Your task to perform on an android device: Open accessibility settings Image 0: 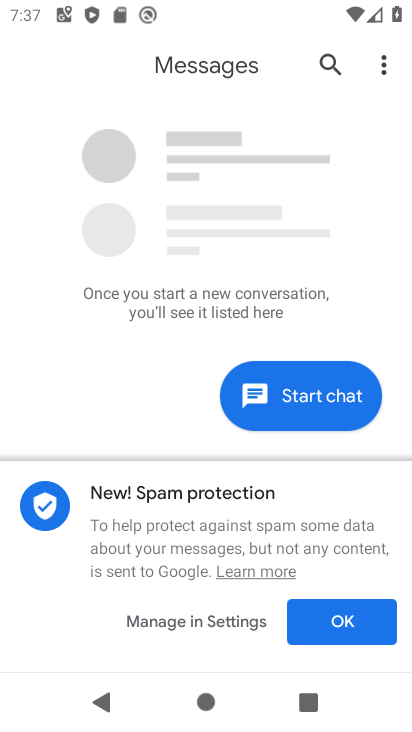
Step 0: press home button
Your task to perform on an android device: Open accessibility settings Image 1: 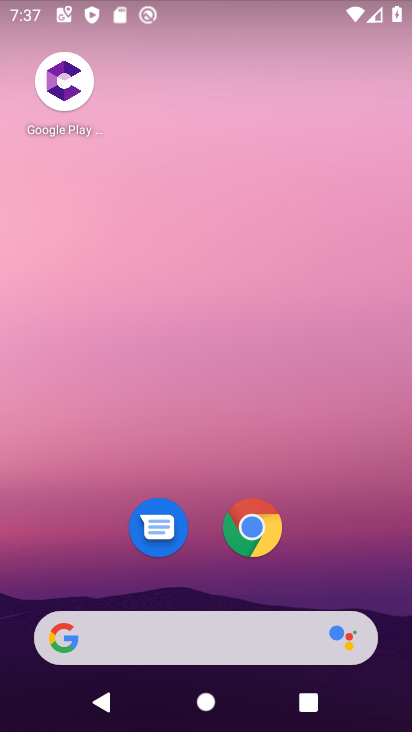
Step 1: drag from (19, 622) to (339, 91)
Your task to perform on an android device: Open accessibility settings Image 2: 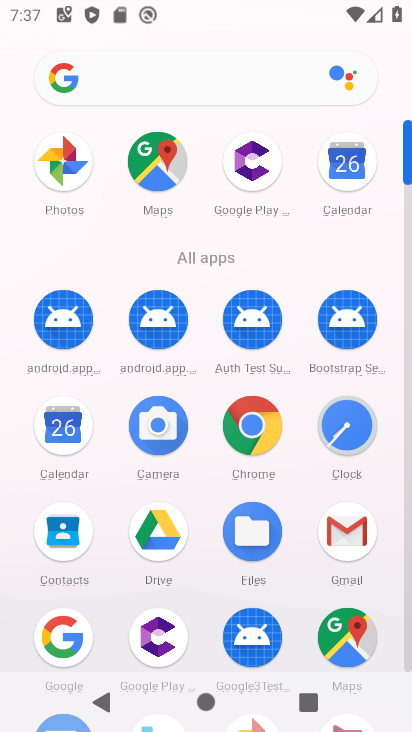
Step 2: drag from (127, 607) to (379, 188)
Your task to perform on an android device: Open accessibility settings Image 3: 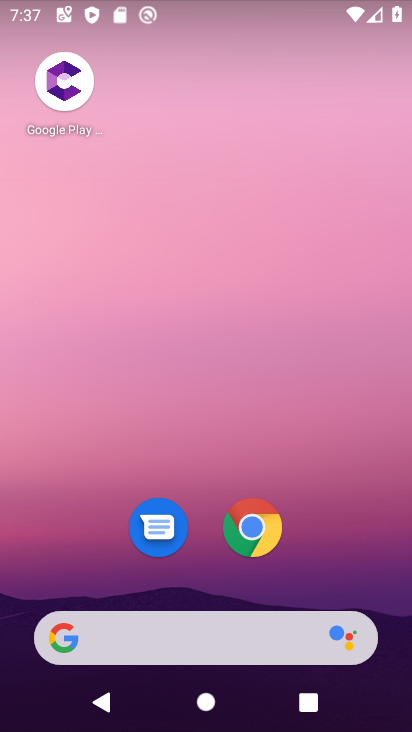
Step 3: drag from (43, 406) to (281, 92)
Your task to perform on an android device: Open accessibility settings Image 4: 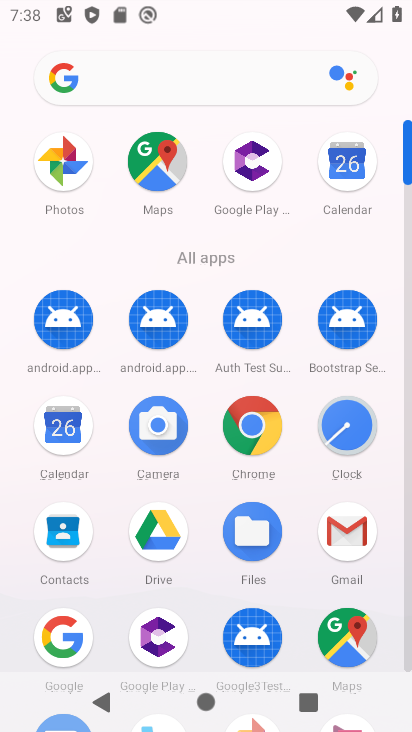
Step 4: drag from (47, 543) to (281, 235)
Your task to perform on an android device: Open accessibility settings Image 5: 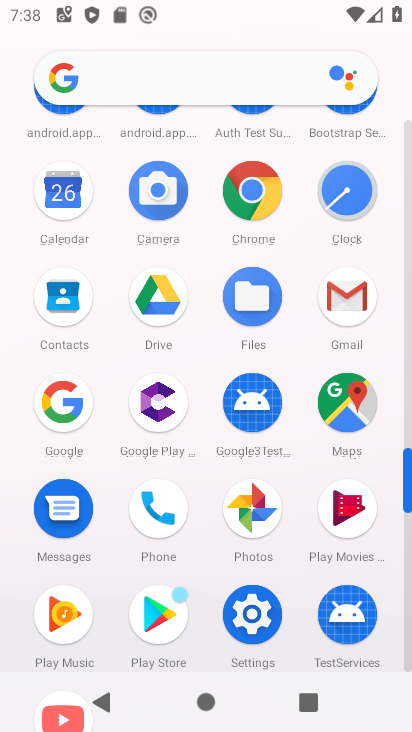
Step 5: click (250, 606)
Your task to perform on an android device: Open accessibility settings Image 6: 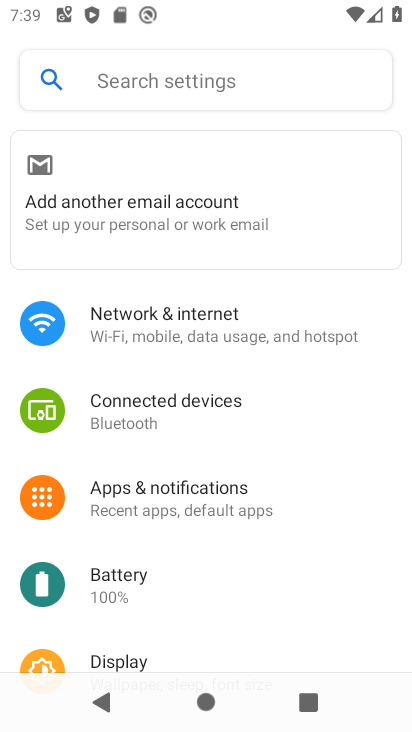
Step 6: drag from (28, 542) to (228, 226)
Your task to perform on an android device: Open accessibility settings Image 7: 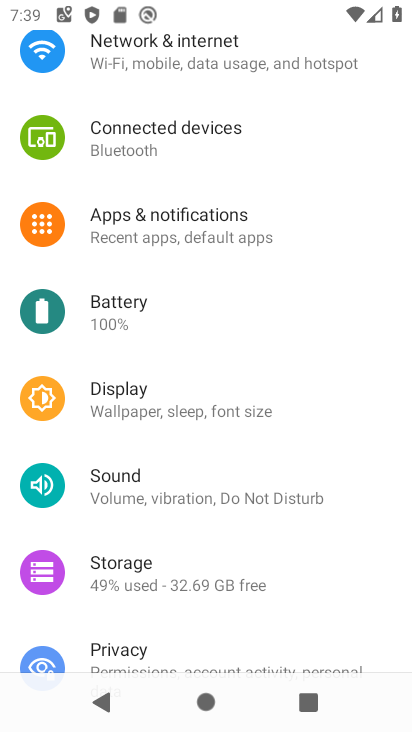
Step 7: drag from (13, 623) to (262, 231)
Your task to perform on an android device: Open accessibility settings Image 8: 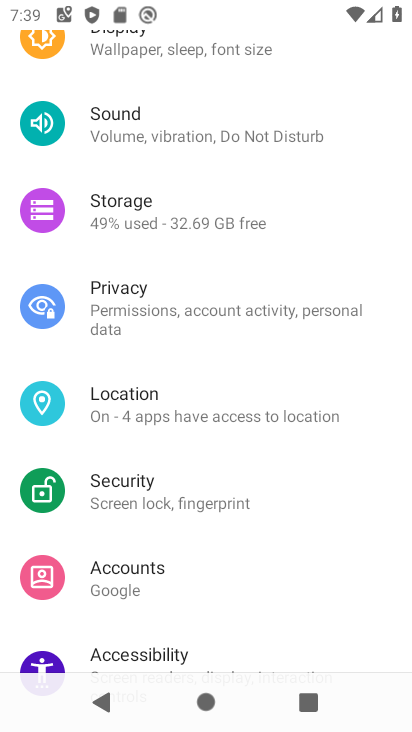
Step 8: click (119, 654)
Your task to perform on an android device: Open accessibility settings Image 9: 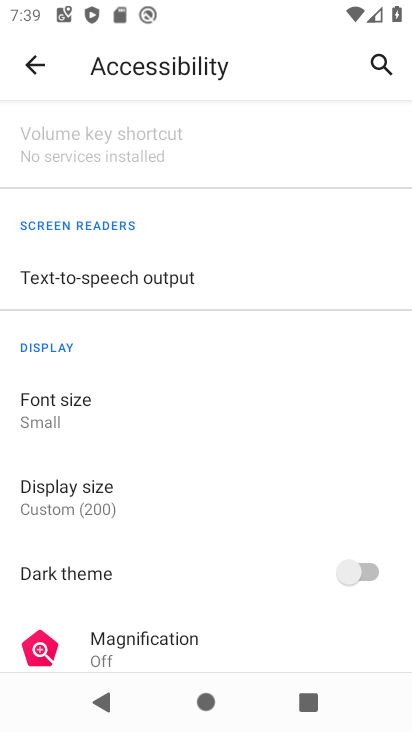
Step 9: task complete